Your task to perform on an android device: Open settings Image 0: 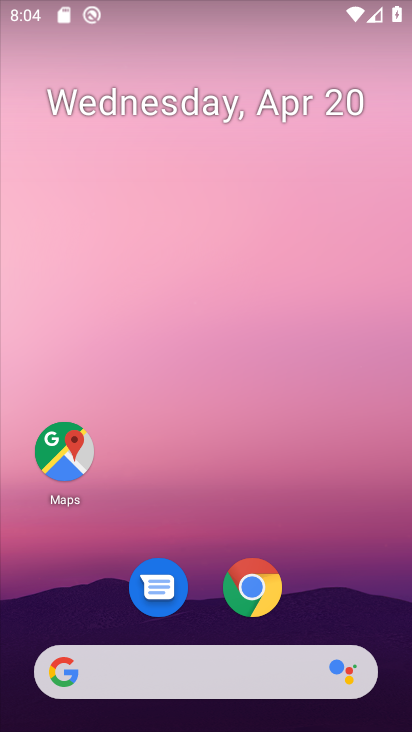
Step 0: drag from (339, 571) to (246, 152)
Your task to perform on an android device: Open settings Image 1: 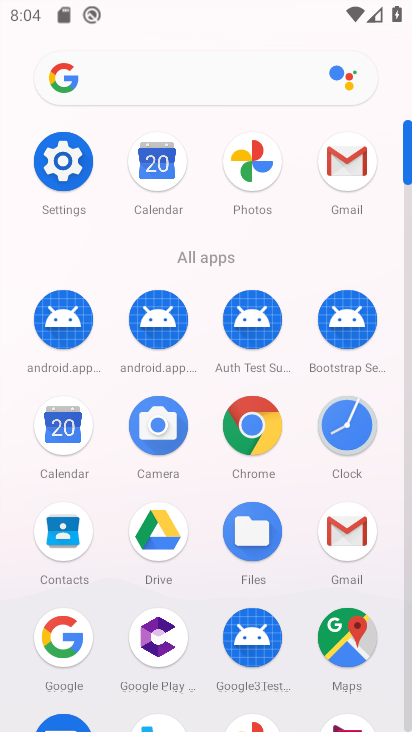
Step 1: click (48, 182)
Your task to perform on an android device: Open settings Image 2: 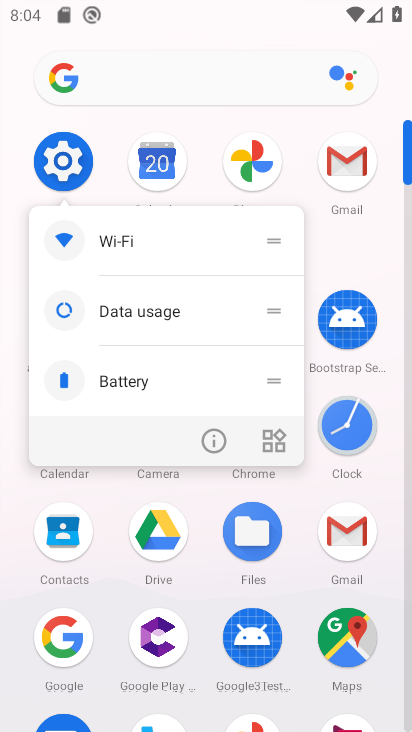
Step 2: click (59, 168)
Your task to perform on an android device: Open settings Image 3: 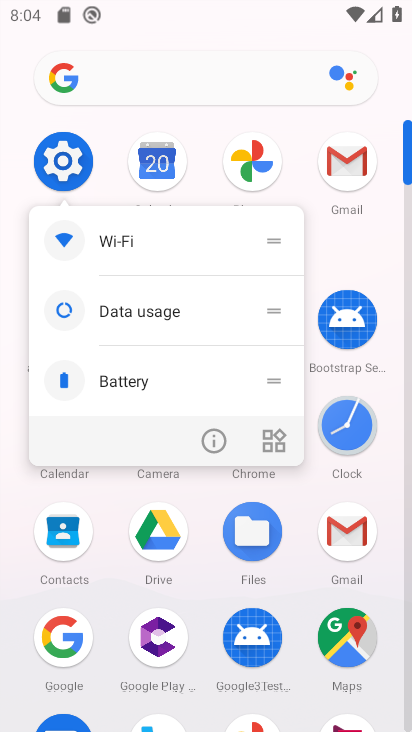
Step 3: click (59, 168)
Your task to perform on an android device: Open settings Image 4: 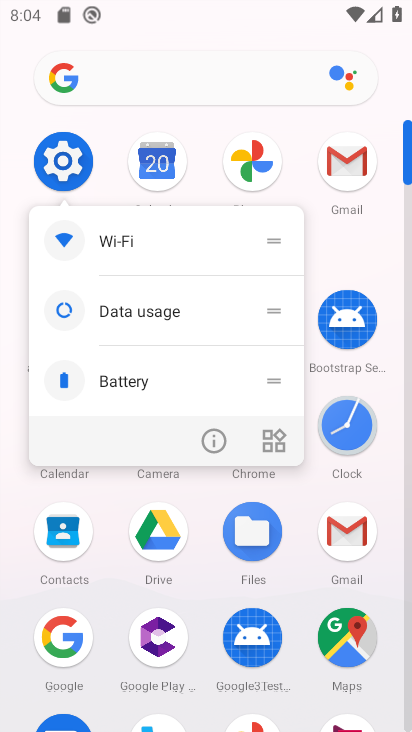
Step 4: click (59, 168)
Your task to perform on an android device: Open settings Image 5: 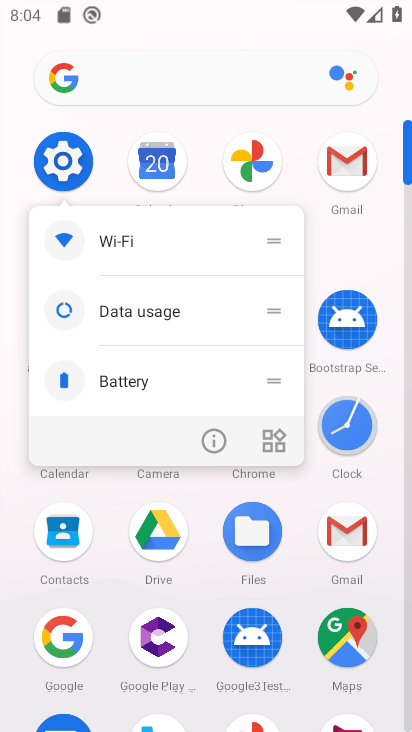
Step 5: click (59, 168)
Your task to perform on an android device: Open settings Image 6: 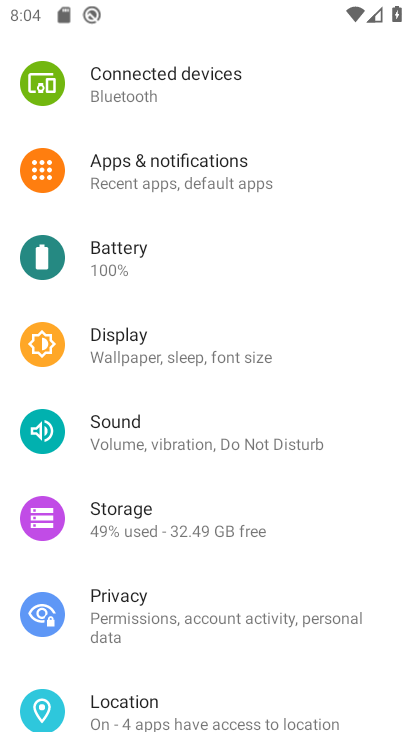
Step 6: task complete